Your task to perform on an android device: allow notifications from all sites in the chrome app Image 0: 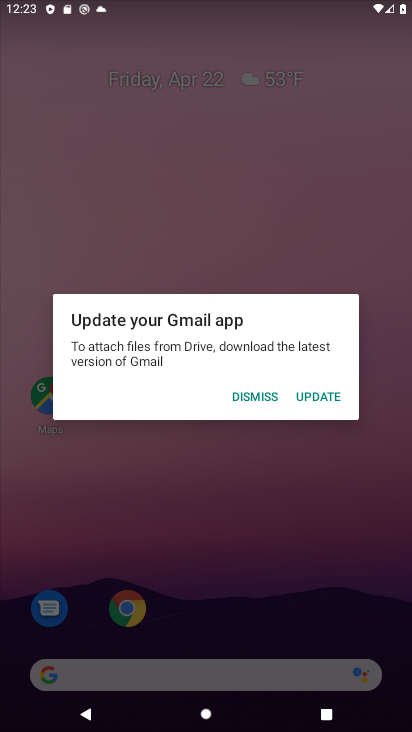
Step 0: press home button
Your task to perform on an android device: allow notifications from all sites in the chrome app Image 1: 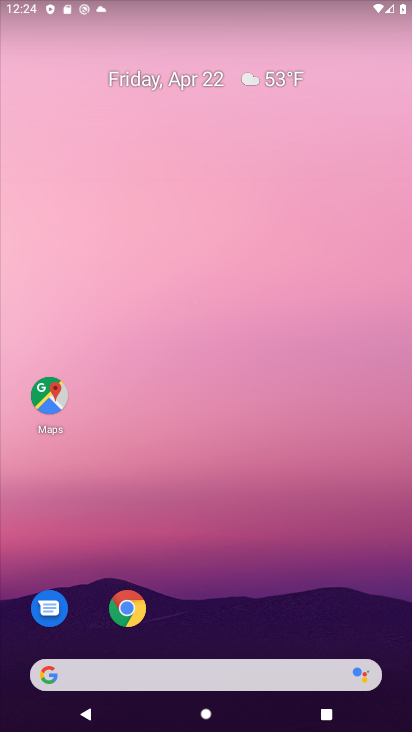
Step 1: drag from (273, 591) to (250, 30)
Your task to perform on an android device: allow notifications from all sites in the chrome app Image 2: 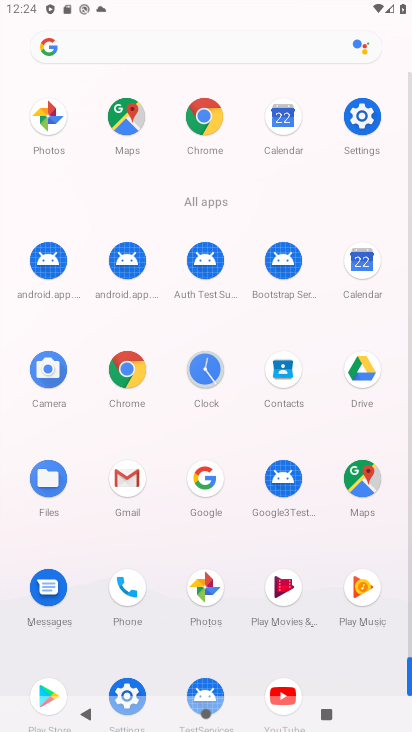
Step 2: click (217, 124)
Your task to perform on an android device: allow notifications from all sites in the chrome app Image 3: 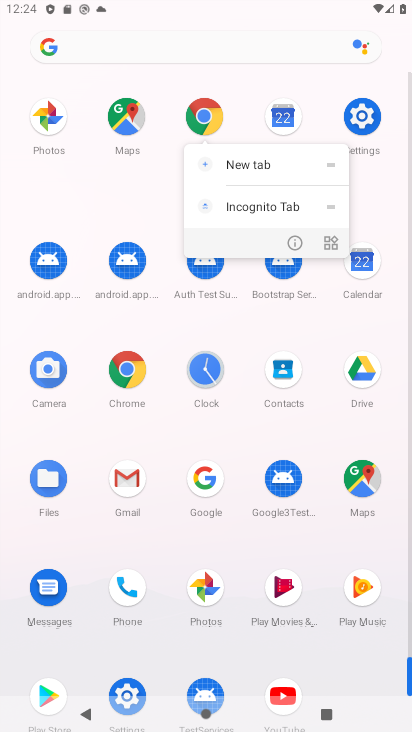
Step 3: click (295, 247)
Your task to perform on an android device: allow notifications from all sites in the chrome app Image 4: 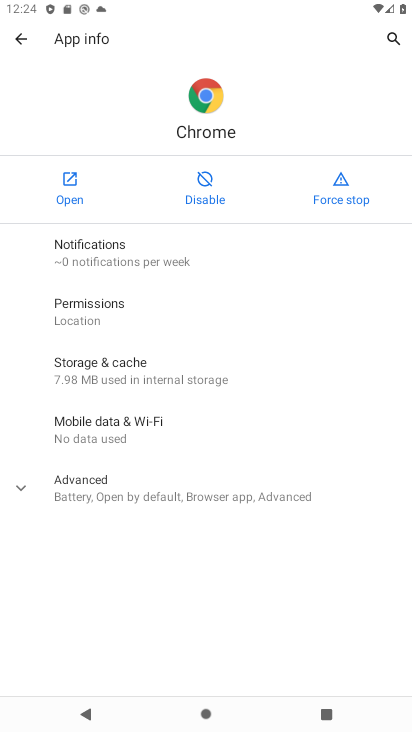
Step 4: click (137, 246)
Your task to perform on an android device: allow notifications from all sites in the chrome app Image 5: 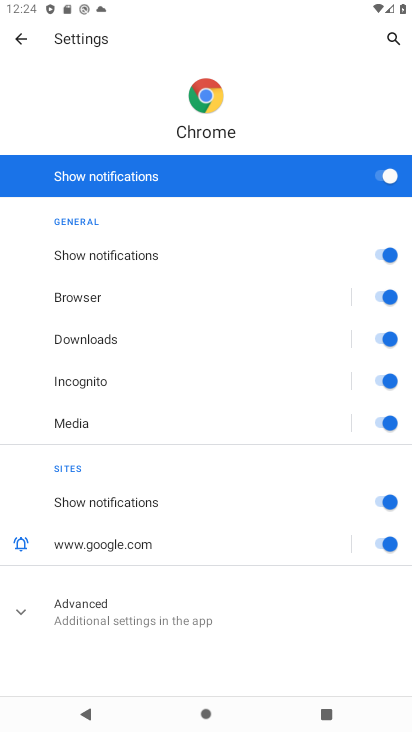
Step 5: task complete